Your task to perform on an android device: see tabs open on other devices in the chrome app Image 0: 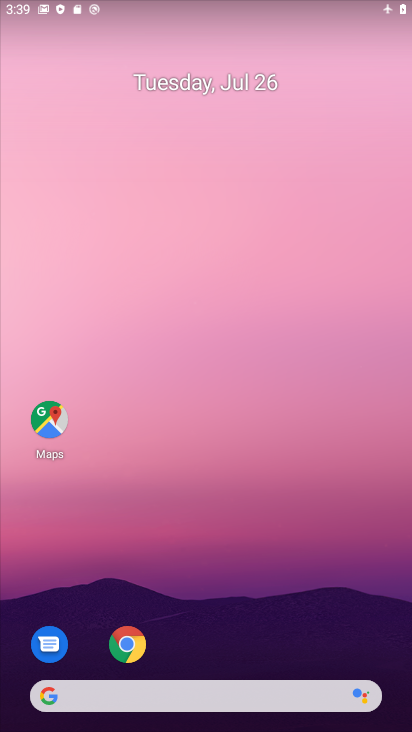
Step 0: click (127, 646)
Your task to perform on an android device: see tabs open on other devices in the chrome app Image 1: 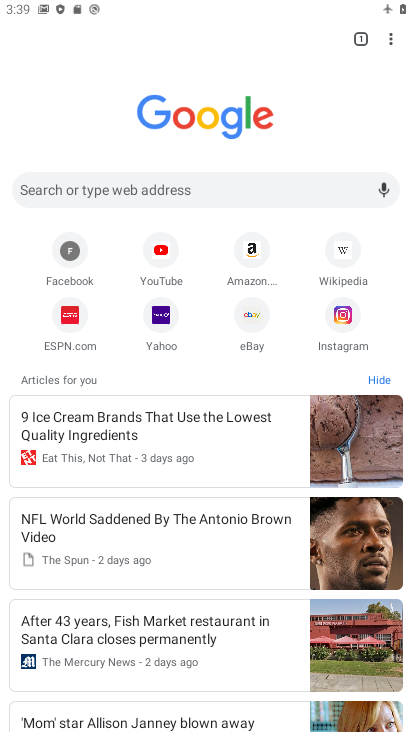
Step 1: click (390, 44)
Your task to perform on an android device: see tabs open on other devices in the chrome app Image 2: 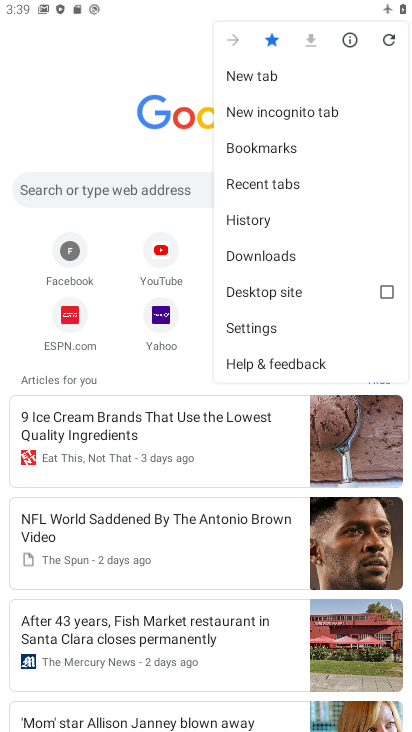
Step 2: click (258, 185)
Your task to perform on an android device: see tabs open on other devices in the chrome app Image 3: 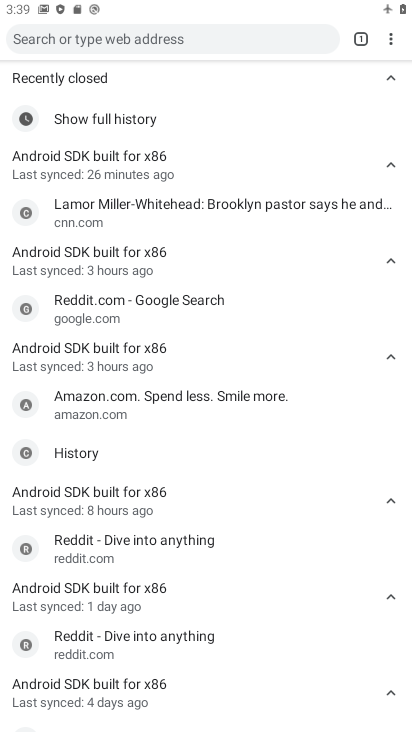
Step 3: task complete